Your task to perform on an android device: Open the map Image 0: 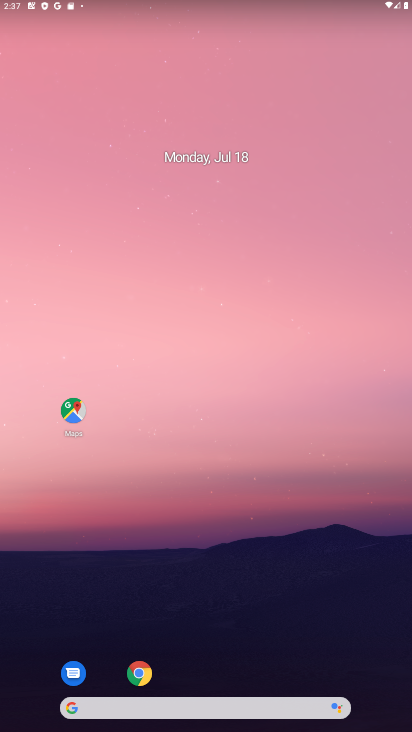
Step 0: click (68, 410)
Your task to perform on an android device: Open the map Image 1: 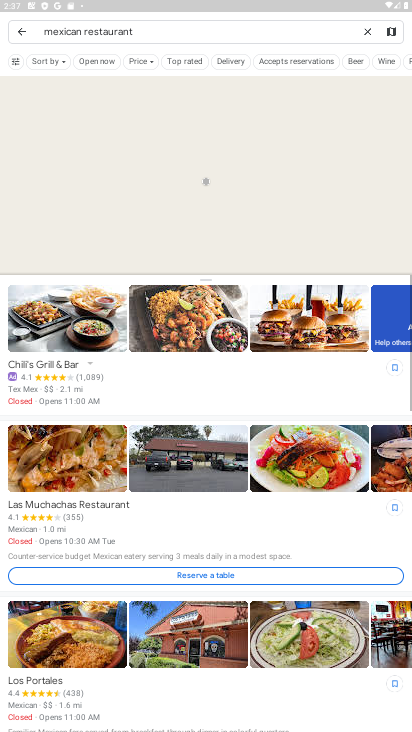
Step 1: task complete